Your task to perform on an android device: toggle pop-ups in chrome Image 0: 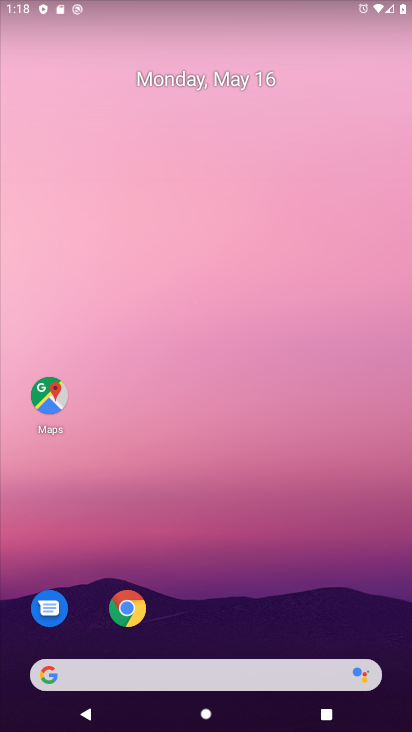
Step 0: click (133, 622)
Your task to perform on an android device: toggle pop-ups in chrome Image 1: 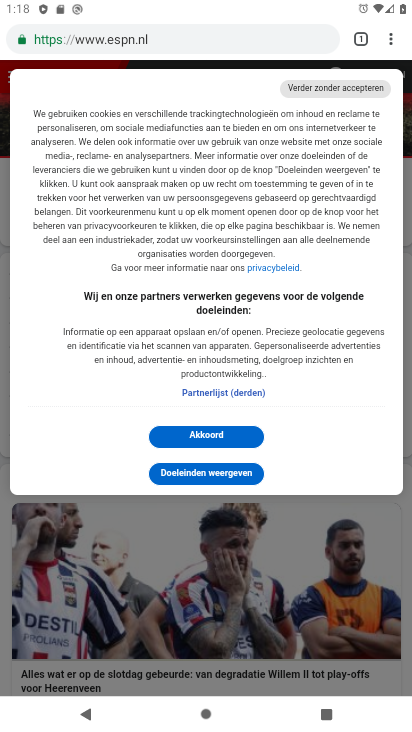
Step 1: drag from (389, 34) to (290, 471)
Your task to perform on an android device: toggle pop-ups in chrome Image 2: 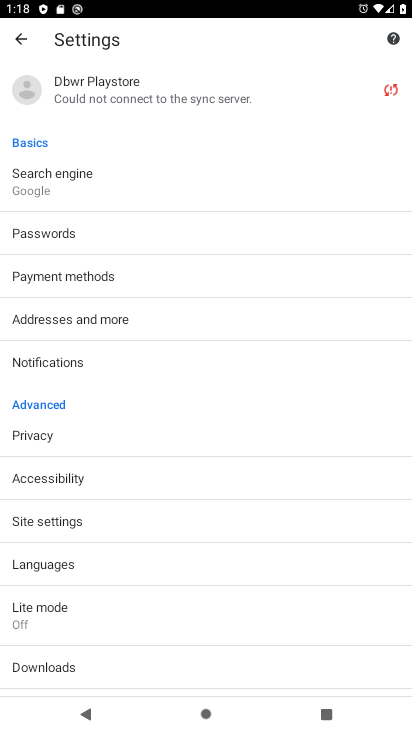
Step 2: drag from (146, 612) to (198, 394)
Your task to perform on an android device: toggle pop-ups in chrome Image 3: 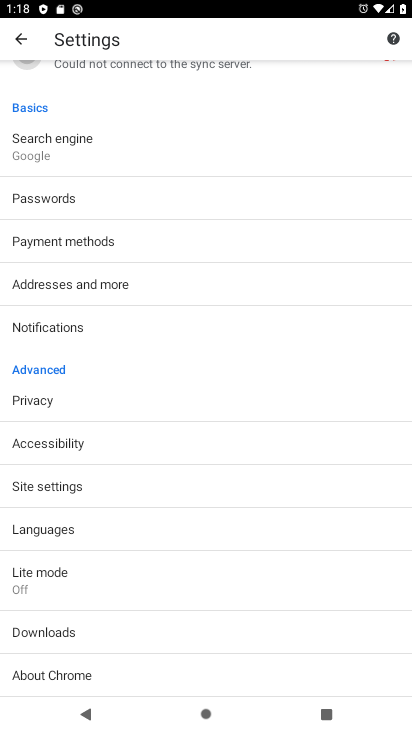
Step 3: click (57, 492)
Your task to perform on an android device: toggle pop-ups in chrome Image 4: 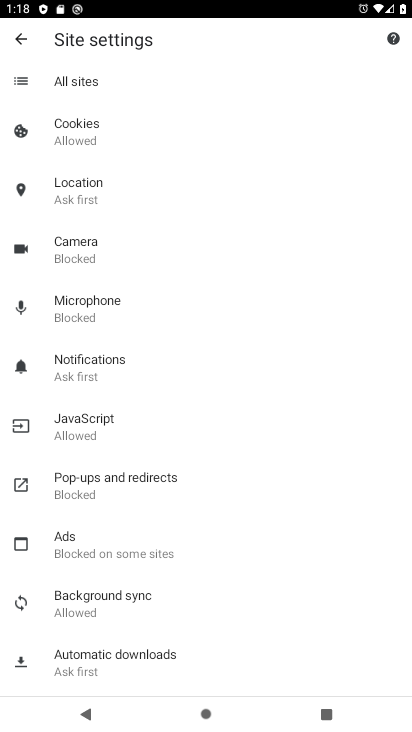
Step 4: click (144, 490)
Your task to perform on an android device: toggle pop-ups in chrome Image 5: 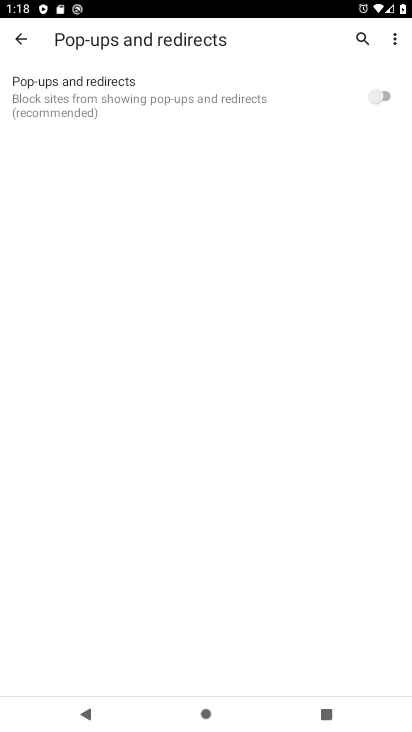
Step 5: click (382, 96)
Your task to perform on an android device: toggle pop-ups in chrome Image 6: 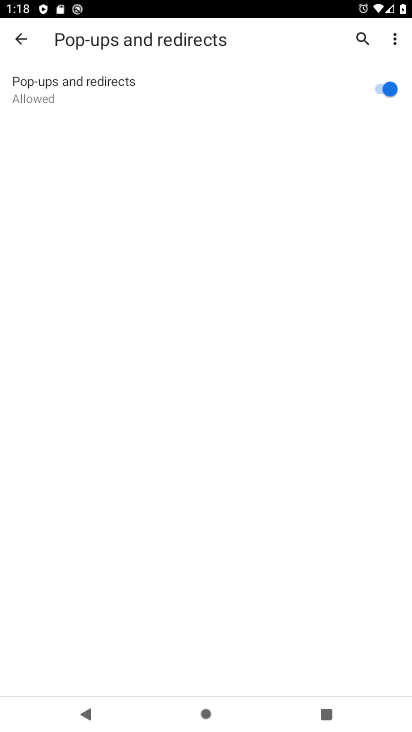
Step 6: task complete